Your task to perform on an android device: turn on the 24-hour format for clock Image 0: 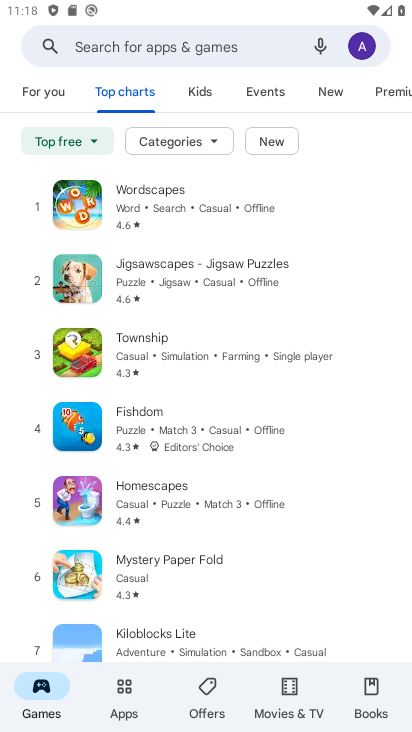
Step 0: press home button
Your task to perform on an android device: turn on the 24-hour format for clock Image 1: 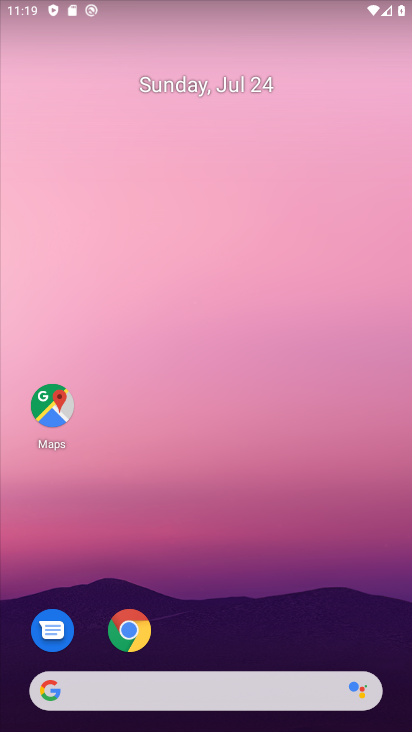
Step 1: drag from (247, 631) to (173, 158)
Your task to perform on an android device: turn on the 24-hour format for clock Image 2: 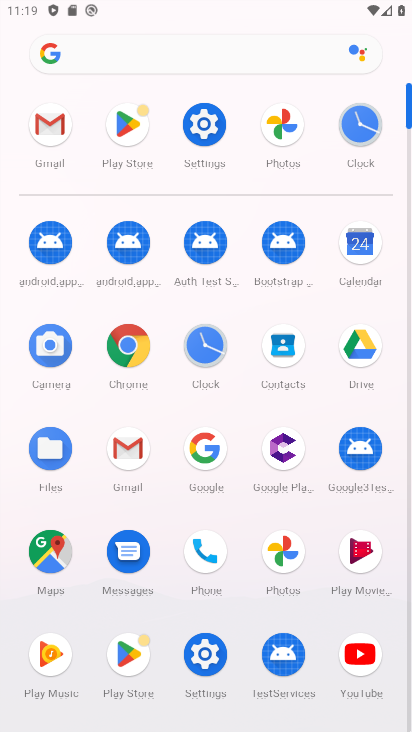
Step 2: click (365, 120)
Your task to perform on an android device: turn on the 24-hour format for clock Image 3: 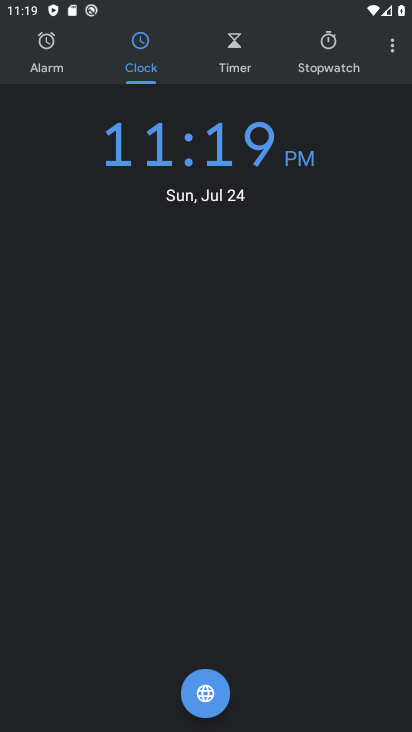
Step 3: click (395, 29)
Your task to perform on an android device: turn on the 24-hour format for clock Image 4: 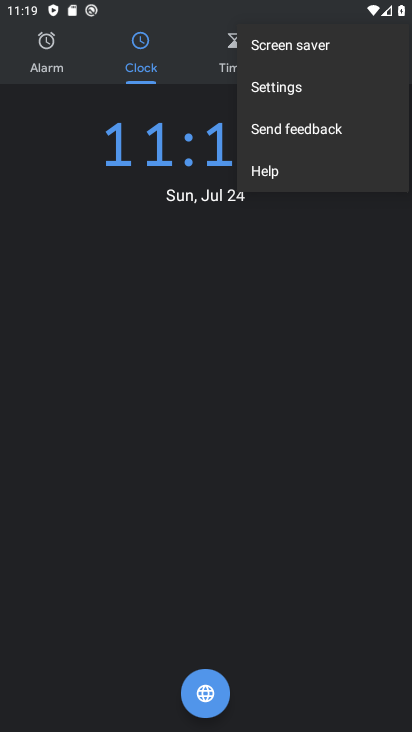
Step 4: click (269, 90)
Your task to perform on an android device: turn on the 24-hour format for clock Image 5: 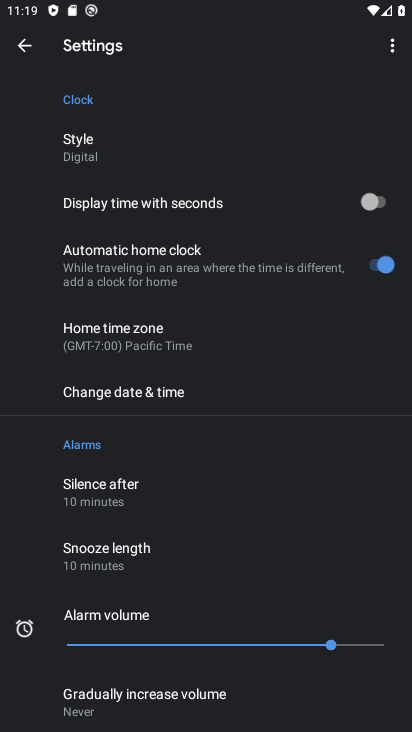
Step 5: click (162, 403)
Your task to perform on an android device: turn on the 24-hour format for clock Image 6: 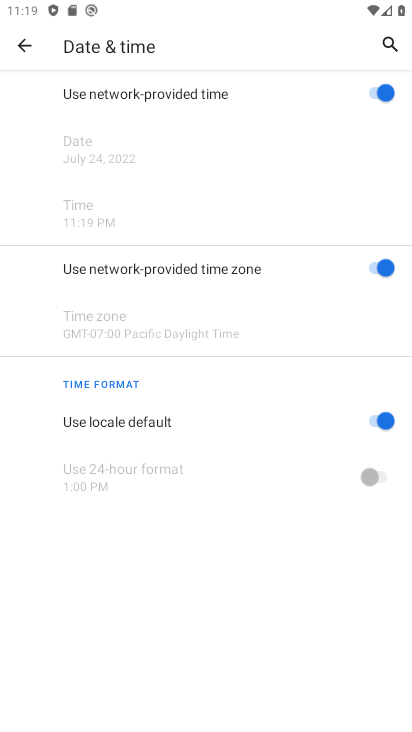
Step 6: click (389, 418)
Your task to perform on an android device: turn on the 24-hour format for clock Image 7: 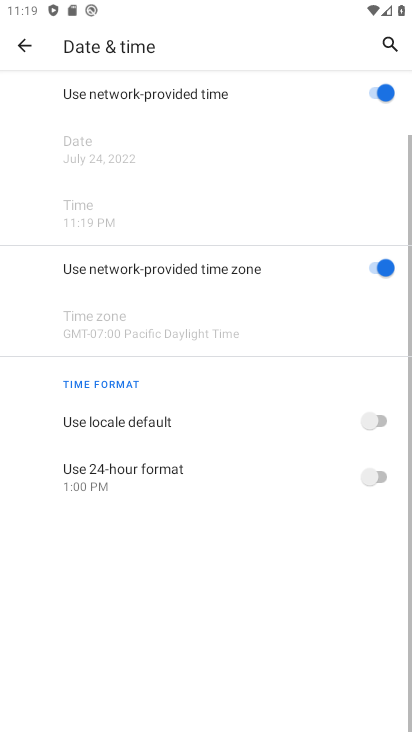
Step 7: click (379, 479)
Your task to perform on an android device: turn on the 24-hour format for clock Image 8: 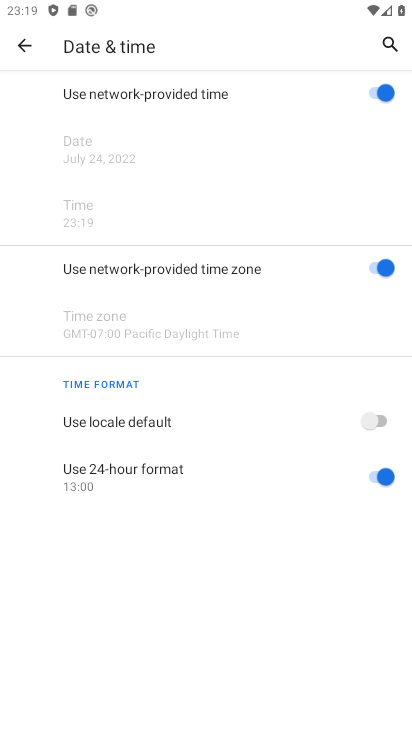
Step 8: task complete